Your task to perform on an android device: visit the assistant section in the google photos Image 0: 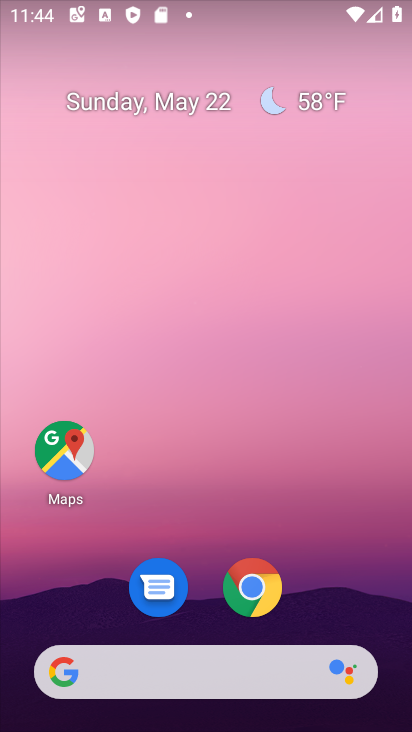
Step 0: drag from (206, 486) to (220, 24)
Your task to perform on an android device: visit the assistant section in the google photos Image 1: 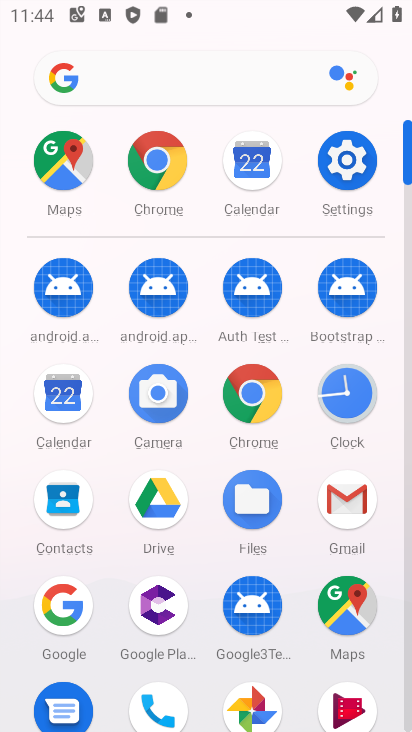
Step 1: click (240, 700)
Your task to perform on an android device: visit the assistant section in the google photos Image 2: 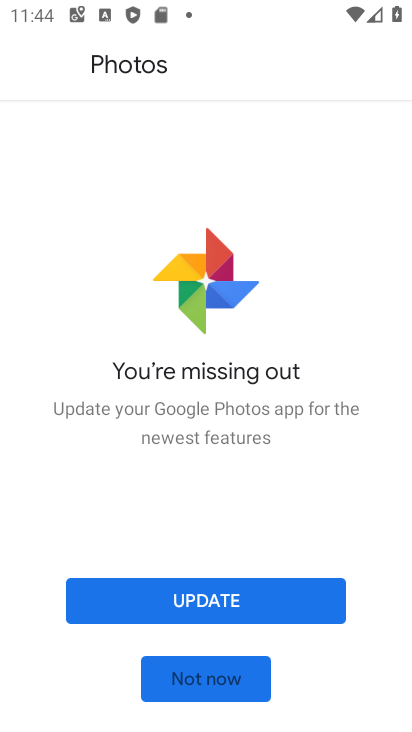
Step 2: click (250, 670)
Your task to perform on an android device: visit the assistant section in the google photos Image 3: 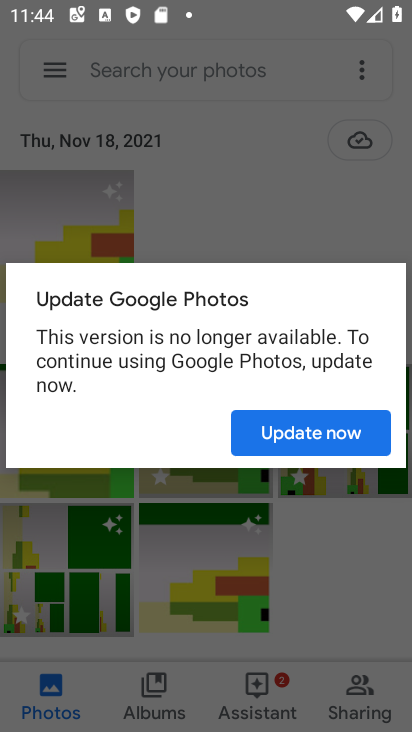
Step 3: click (320, 419)
Your task to perform on an android device: visit the assistant section in the google photos Image 4: 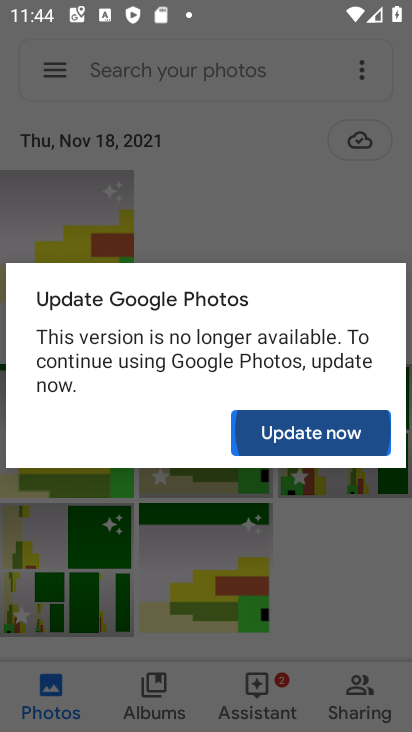
Step 4: click (325, 424)
Your task to perform on an android device: visit the assistant section in the google photos Image 5: 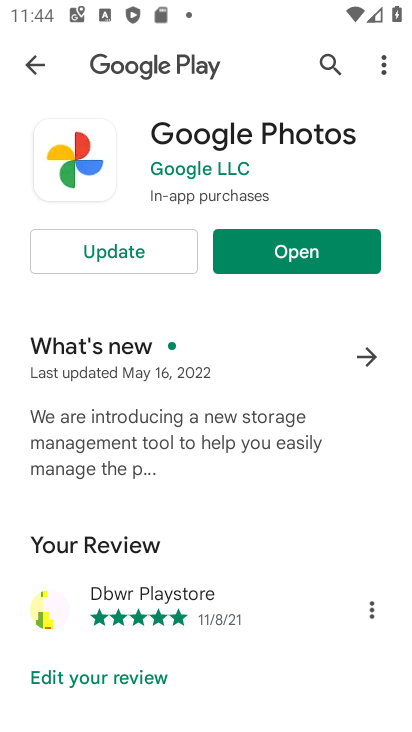
Step 5: click (323, 242)
Your task to perform on an android device: visit the assistant section in the google photos Image 6: 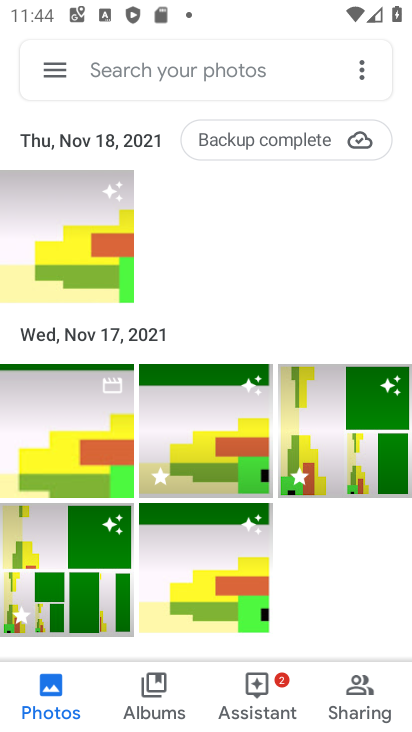
Step 6: click (262, 691)
Your task to perform on an android device: visit the assistant section in the google photos Image 7: 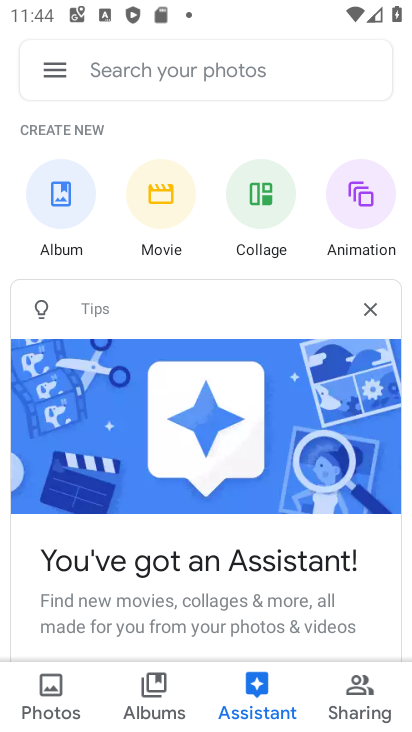
Step 7: task complete